Your task to perform on an android device: turn notification dots off Image 0: 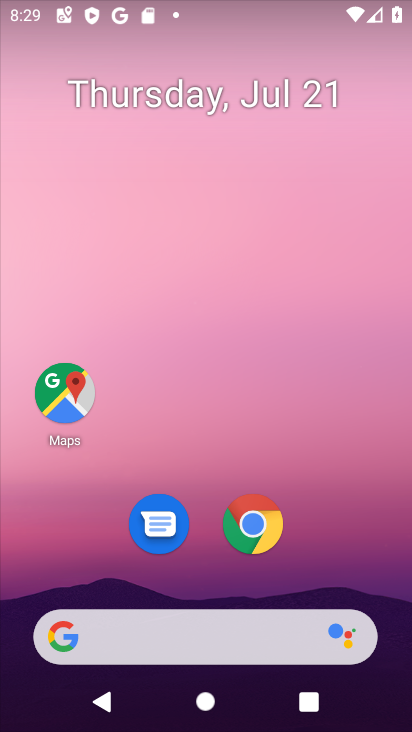
Step 0: press home button
Your task to perform on an android device: turn notification dots off Image 1: 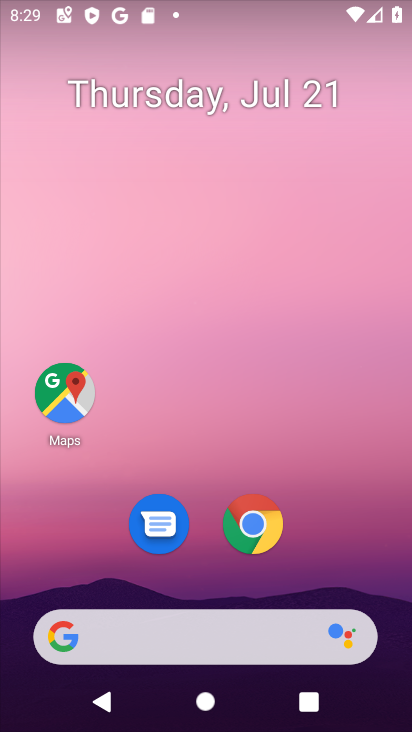
Step 1: drag from (187, 634) to (313, 91)
Your task to perform on an android device: turn notification dots off Image 2: 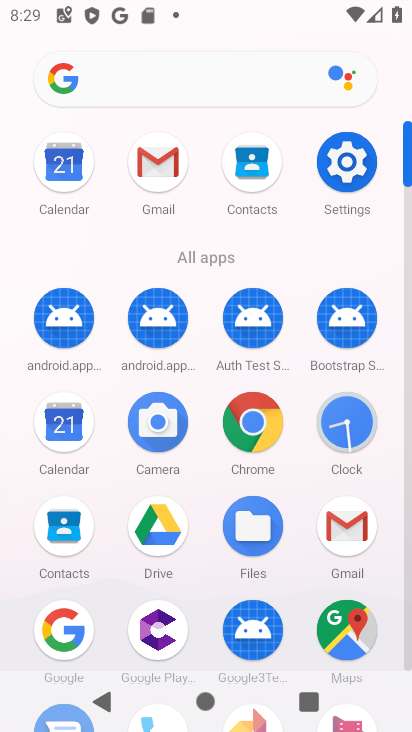
Step 2: click (342, 159)
Your task to perform on an android device: turn notification dots off Image 3: 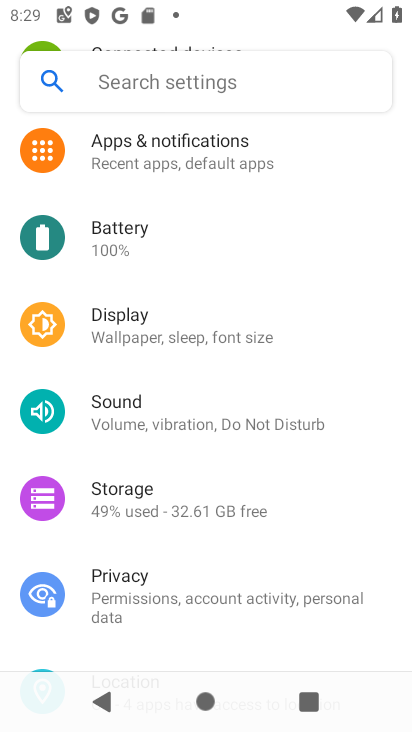
Step 3: click (204, 151)
Your task to perform on an android device: turn notification dots off Image 4: 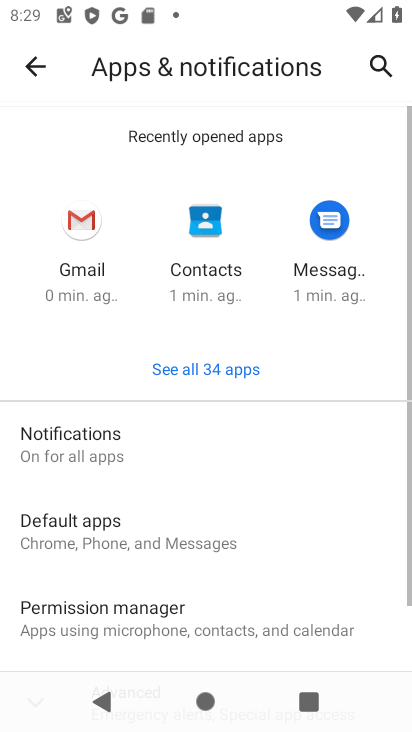
Step 4: click (87, 449)
Your task to perform on an android device: turn notification dots off Image 5: 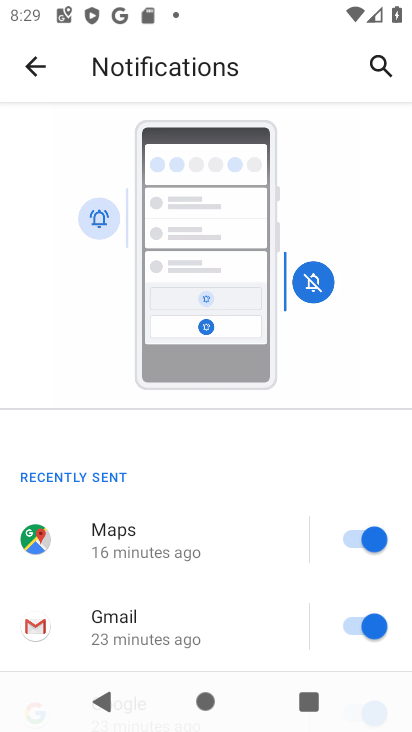
Step 5: drag from (225, 617) to (361, 66)
Your task to perform on an android device: turn notification dots off Image 6: 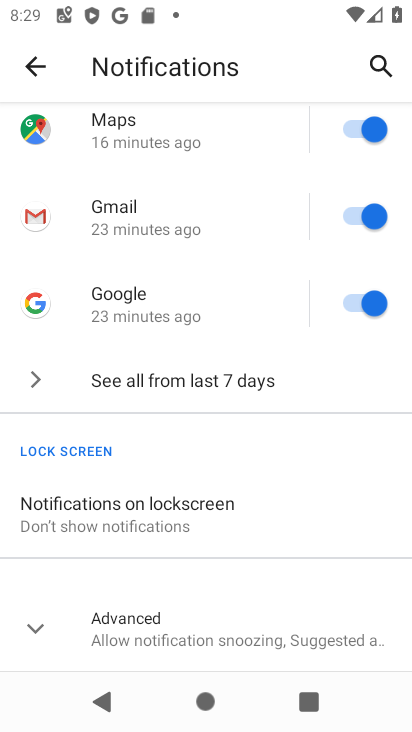
Step 6: click (141, 619)
Your task to perform on an android device: turn notification dots off Image 7: 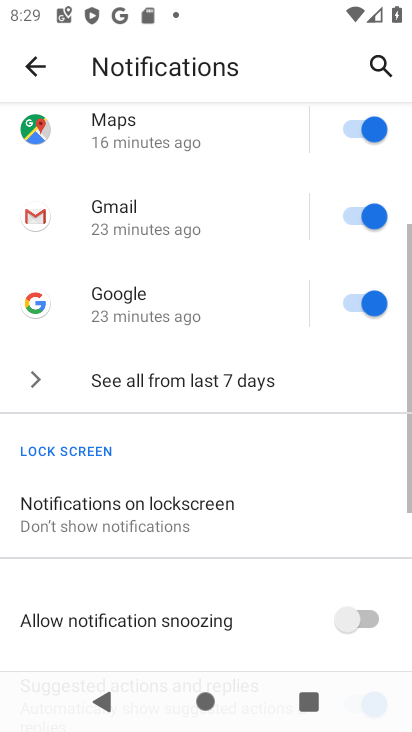
Step 7: drag from (241, 588) to (319, 69)
Your task to perform on an android device: turn notification dots off Image 8: 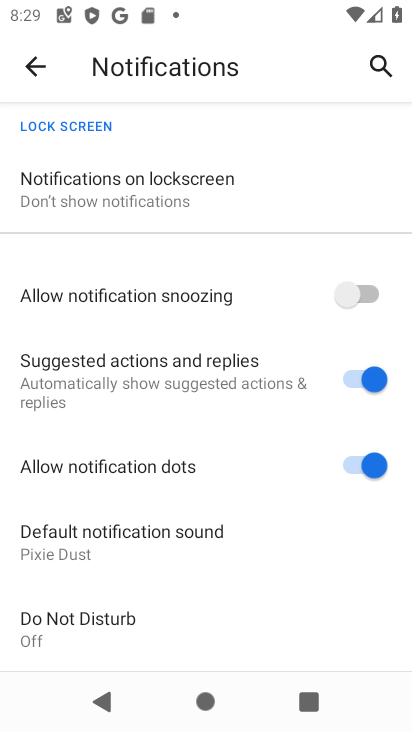
Step 8: click (354, 464)
Your task to perform on an android device: turn notification dots off Image 9: 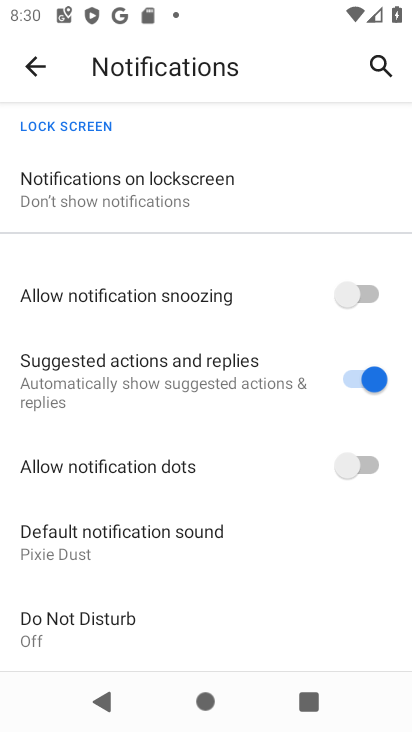
Step 9: task complete